Your task to perform on an android device: Search for sushi restaurants on Maps Image 0: 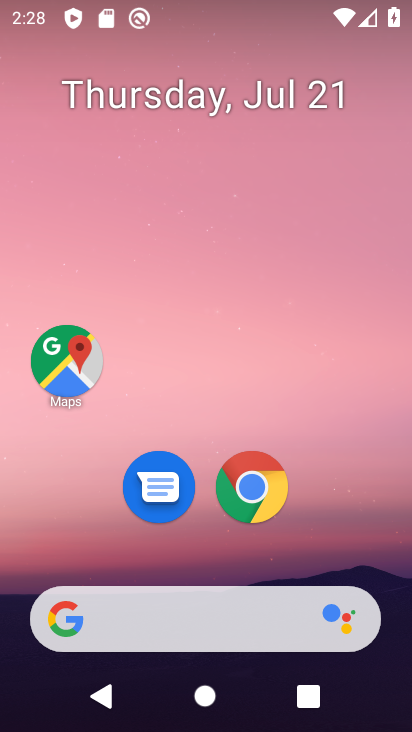
Step 0: click (60, 374)
Your task to perform on an android device: Search for sushi restaurants on Maps Image 1: 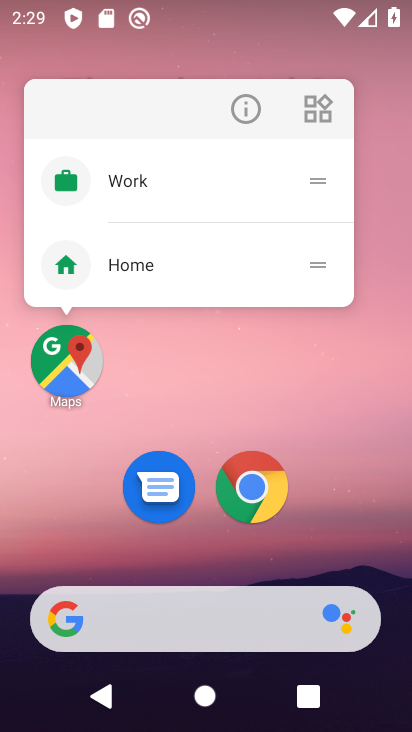
Step 1: click (58, 353)
Your task to perform on an android device: Search for sushi restaurants on Maps Image 2: 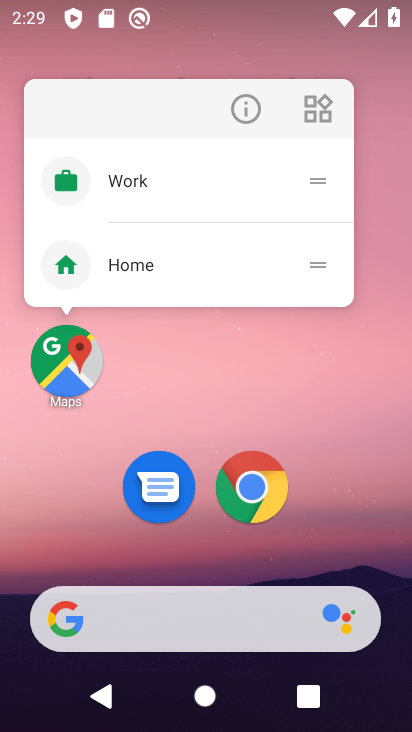
Step 2: click (62, 361)
Your task to perform on an android device: Search for sushi restaurants on Maps Image 3: 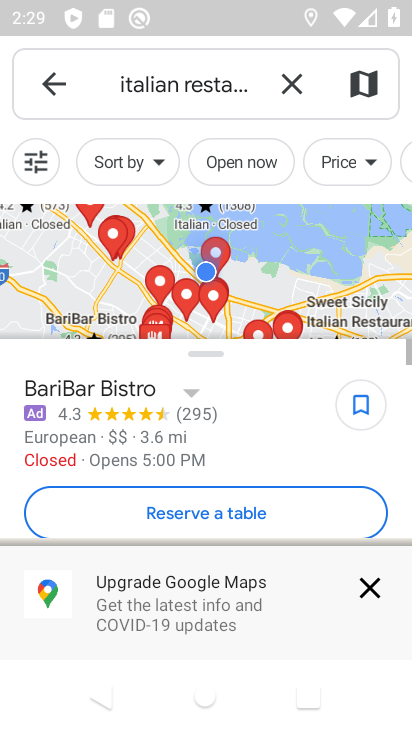
Step 3: click (287, 76)
Your task to perform on an android device: Search for sushi restaurants on Maps Image 4: 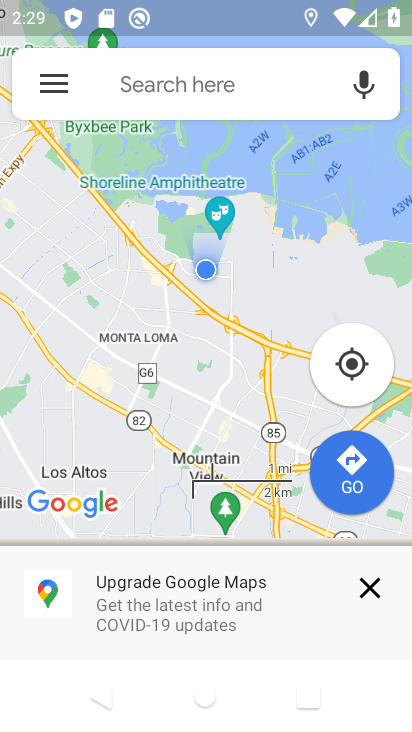
Step 4: click (170, 81)
Your task to perform on an android device: Search for sushi restaurants on Maps Image 5: 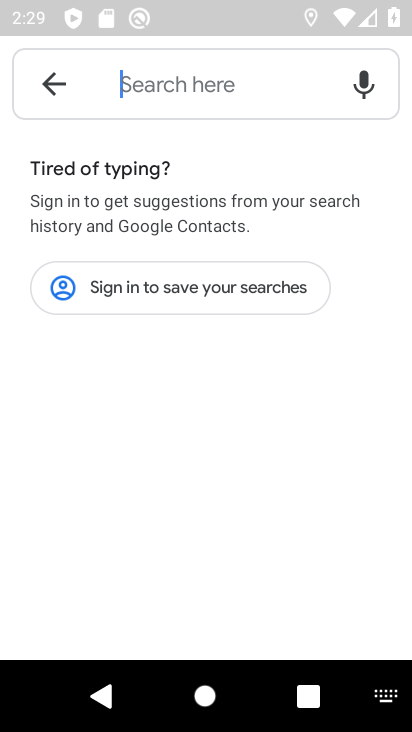
Step 5: type "sushi  rstaurants"
Your task to perform on an android device: Search for sushi restaurants on Maps Image 6: 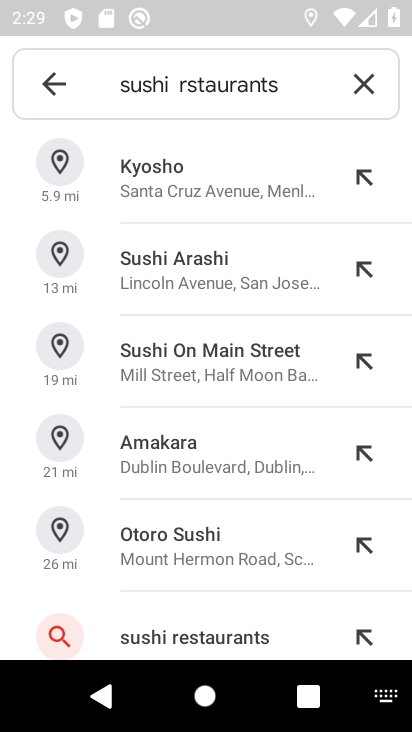
Step 6: click (194, 642)
Your task to perform on an android device: Search for sushi restaurants on Maps Image 7: 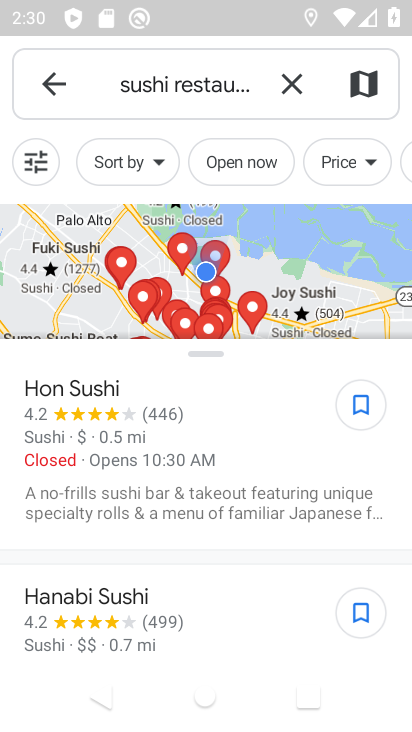
Step 7: task complete